Your task to perform on an android device: change timer sound Image 0: 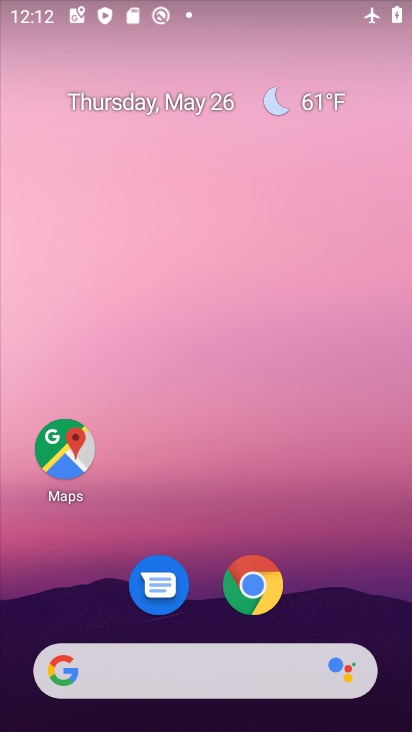
Step 0: drag from (221, 516) to (276, 40)
Your task to perform on an android device: change timer sound Image 1: 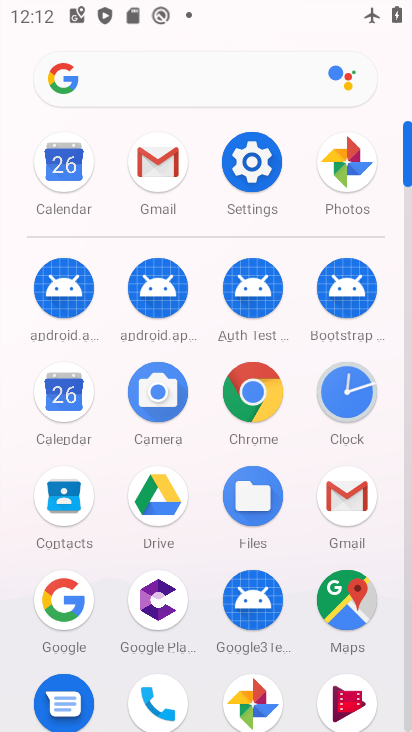
Step 1: click (346, 383)
Your task to perform on an android device: change timer sound Image 2: 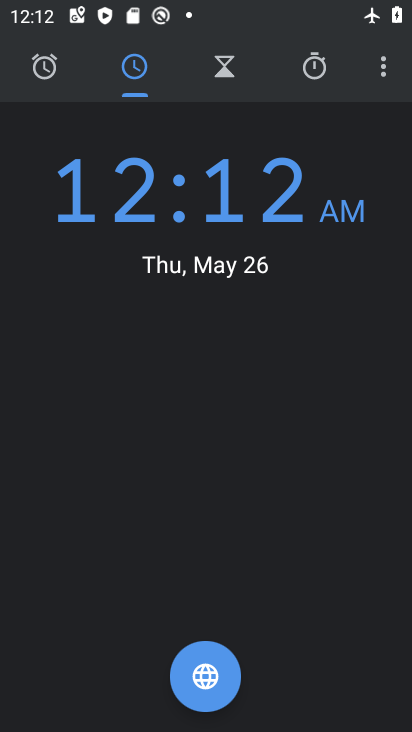
Step 2: click (385, 72)
Your task to perform on an android device: change timer sound Image 3: 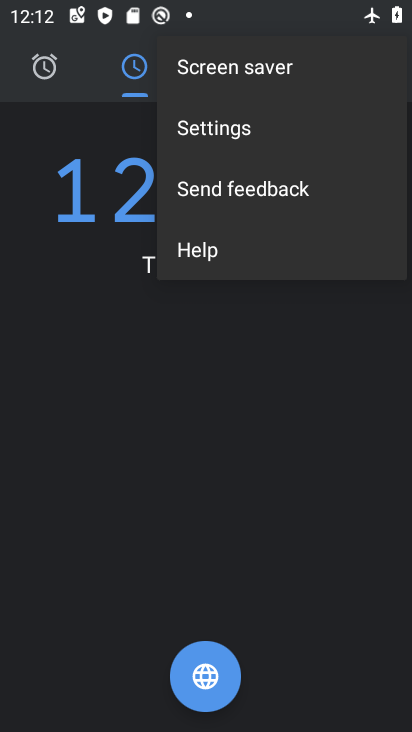
Step 3: click (259, 128)
Your task to perform on an android device: change timer sound Image 4: 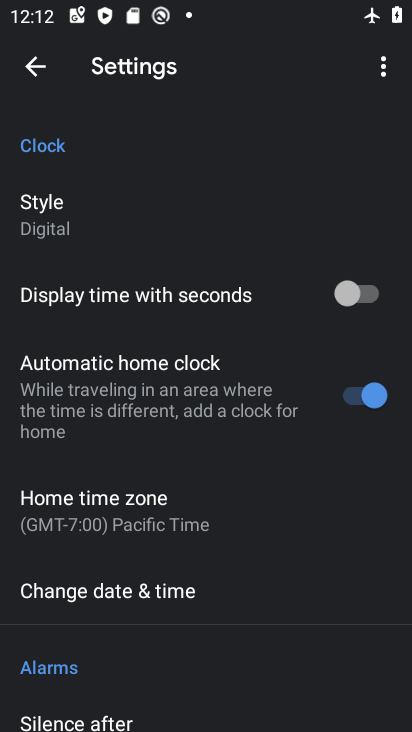
Step 4: drag from (202, 536) to (217, 43)
Your task to perform on an android device: change timer sound Image 5: 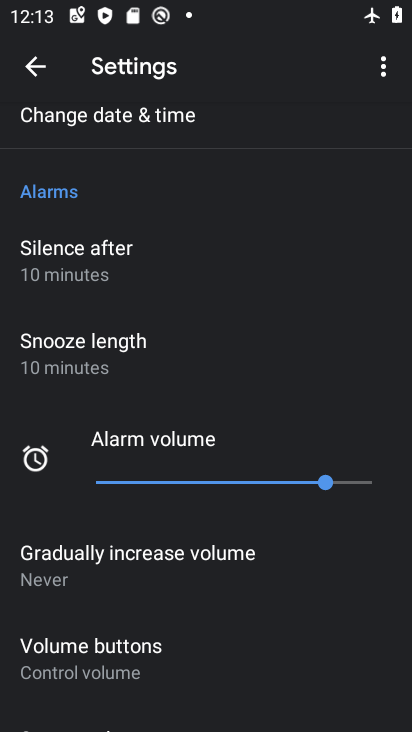
Step 5: drag from (212, 633) to (256, 86)
Your task to perform on an android device: change timer sound Image 6: 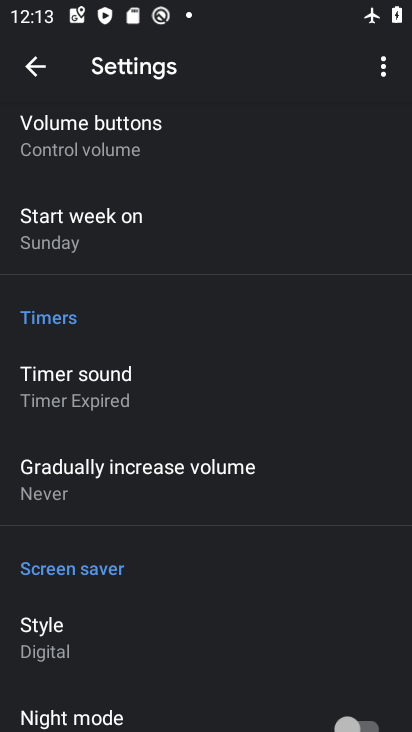
Step 6: click (112, 382)
Your task to perform on an android device: change timer sound Image 7: 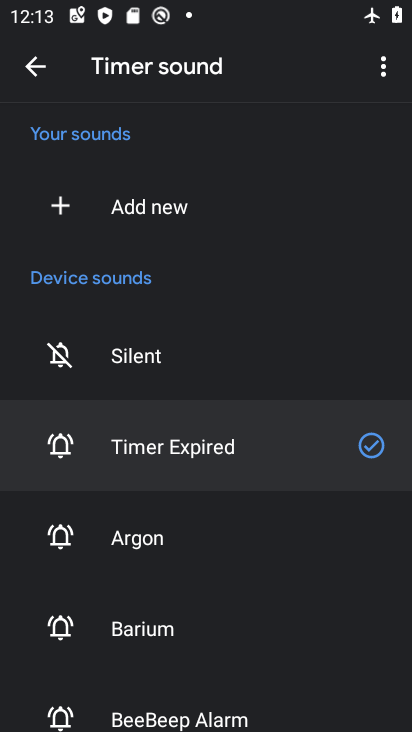
Step 7: click (121, 528)
Your task to perform on an android device: change timer sound Image 8: 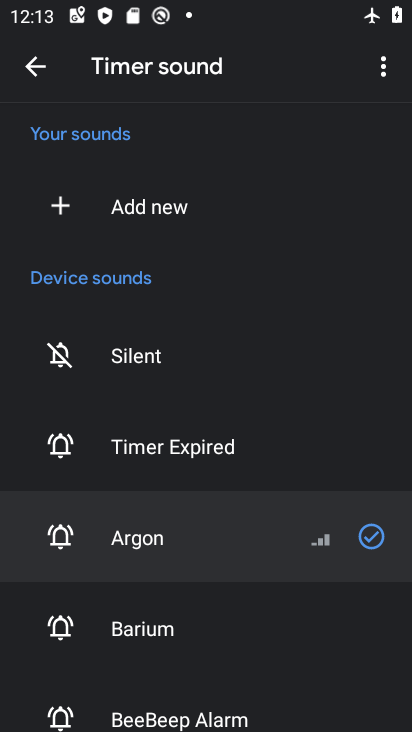
Step 8: task complete